Your task to perform on an android device: turn vacation reply on in the gmail app Image 0: 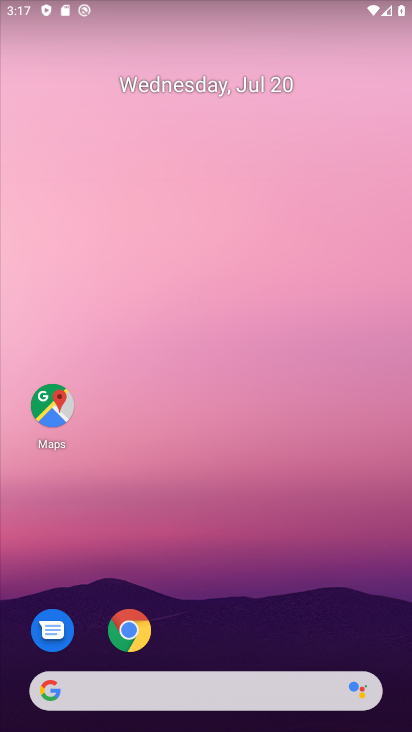
Step 0: press home button
Your task to perform on an android device: turn vacation reply on in the gmail app Image 1: 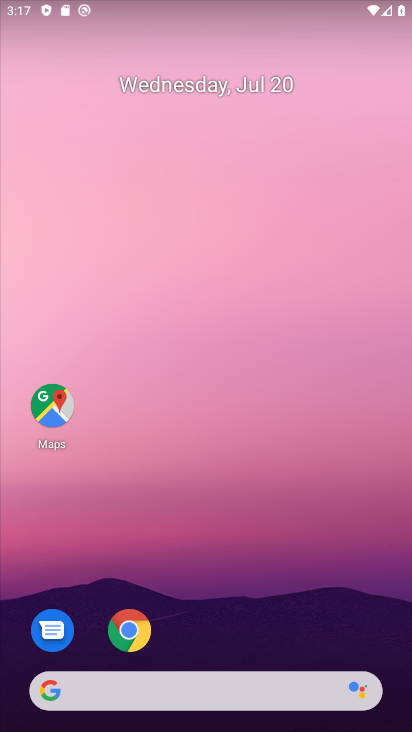
Step 1: drag from (240, 652) to (218, 134)
Your task to perform on an android device: turn vacation reply on in the gmail app Image 2: 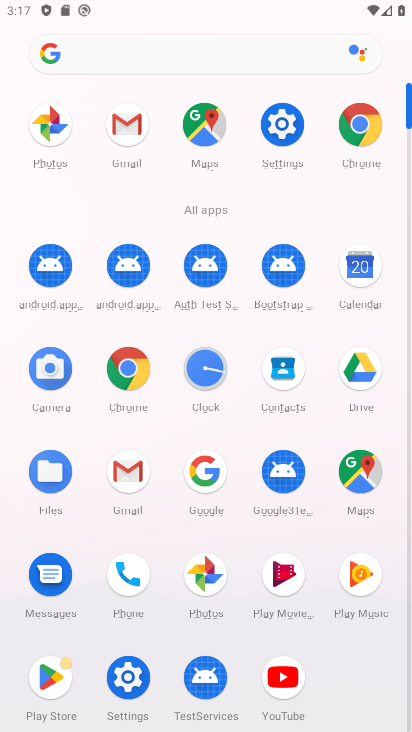
Step 2: click (131, 135)
Your task to perform on an android device: turn vacation reply on in the gmail app Image 3: 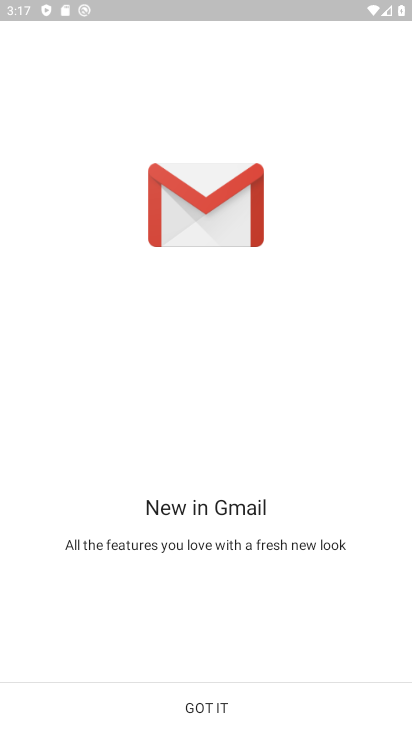
Step 3: click (224, 700)
Your task to perform on an android device: turn vacation reply on in the gmail app Image 4: 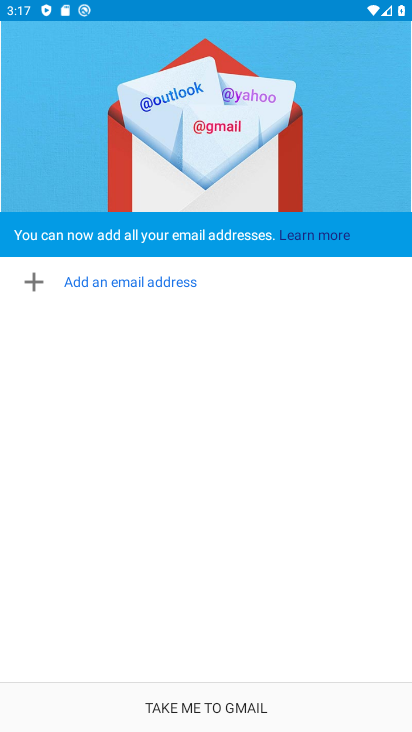
Step 4: click (221, 708)
Your task to perform on an android device: turn vacation reply on in the gmail app Image 5: 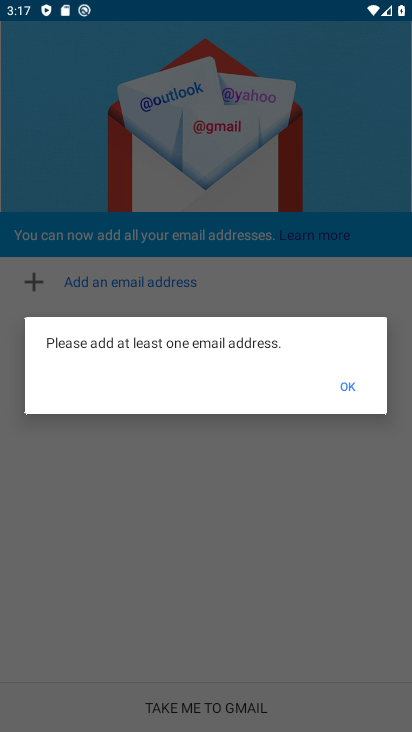
Step 5: click (354, 397)
Your task to perform on an android device: turn vacation reply on in the gmail app Image 6: 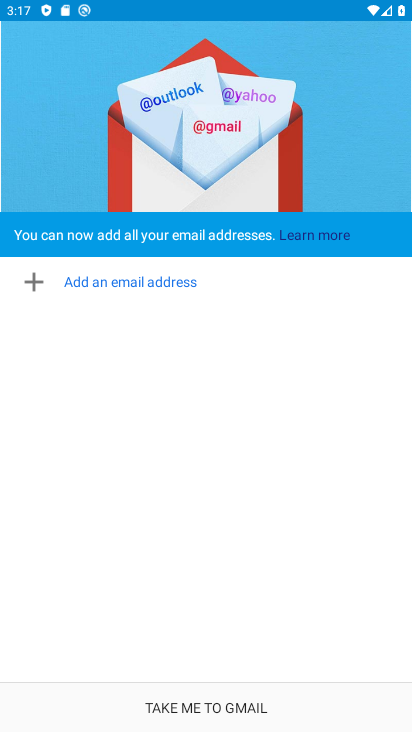
Step 6: task complete